Your task to perform on an android device: toggle data saver in the chrome app Image 0: 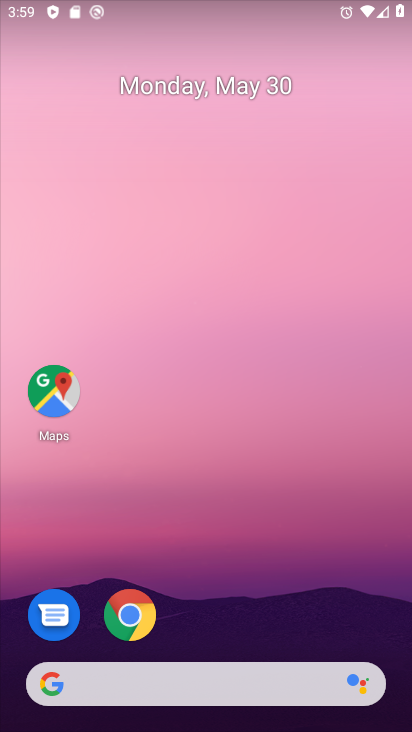
Step 0: click (137, 605)
Your task to perform on an android device: toggle data saver in the chrome app Image 1: 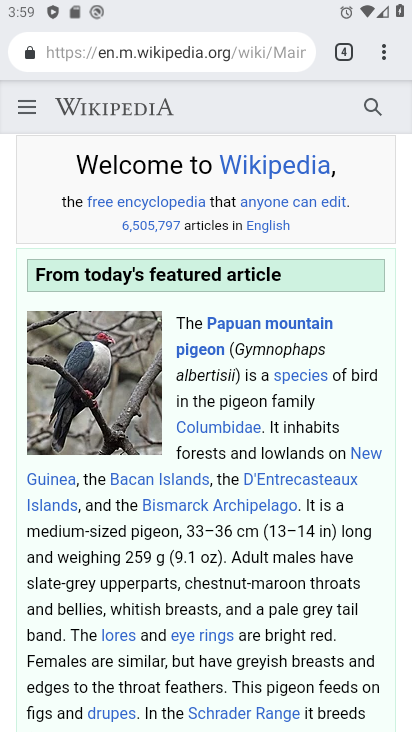
Step 1: click (137, 605)
Your task to perform on an android device: toggle data saver in the chrome app Image 2: 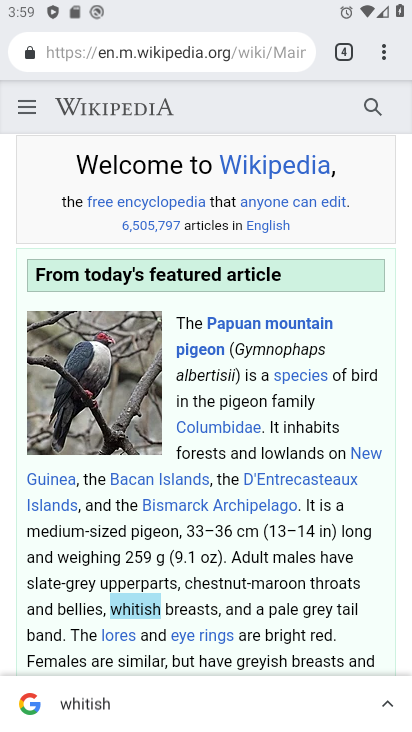
Step 2: click (383, 51)
Your task to perform on an android device: toggle data saver in the chrome app Image 3: 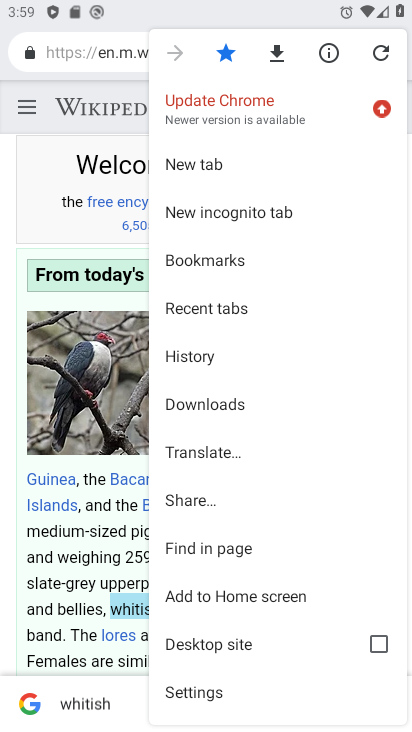
Step 3: click (229, 691)
Your task to perform on an android device: toggle data saver in the chrome app Image 4: 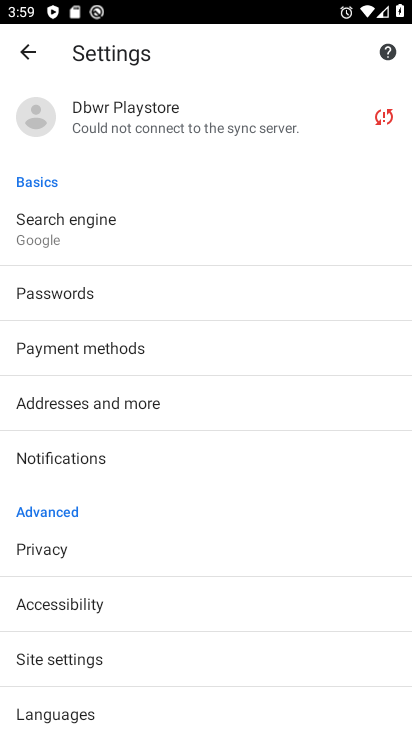
Step 4: drag from (229, 688) to (229, 480)
Your task to perform on an android device: toggle data saver in the chrome app Image 5: 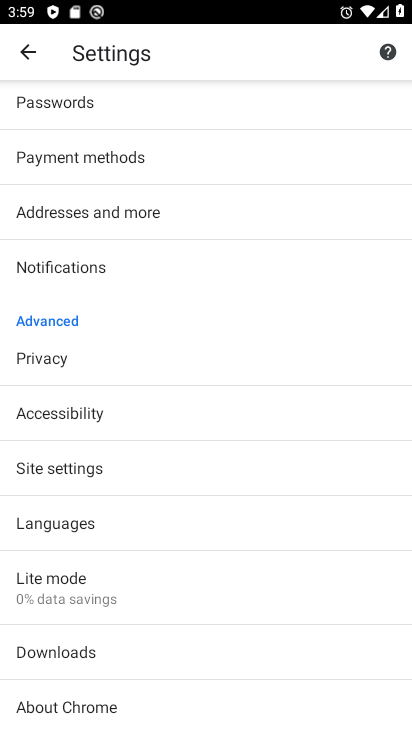
Step 5: click (172, 582)
Your task to perform on an android device: toggle data saver in the chrome app Image 6: 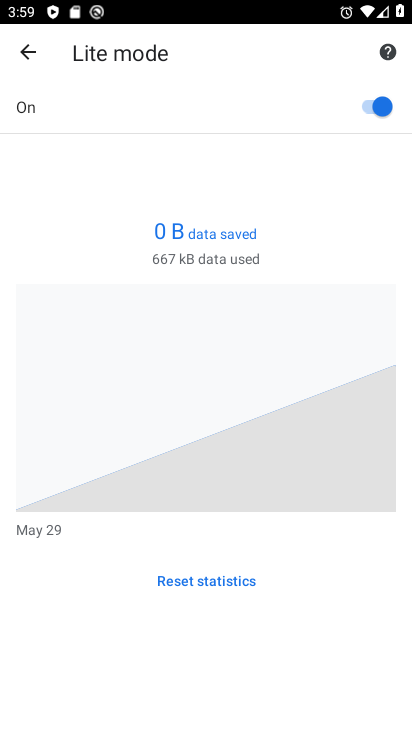
Step 6: click (380, 103)
Your task to perform on an android device: toggle data saver in the chrome app Image 7: 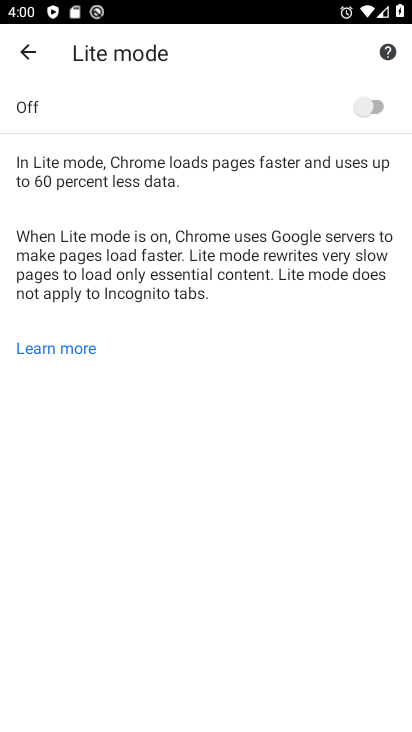
Step 7: task complete